Your task to perform on an android device: open app "VLC for Android" Image 0: 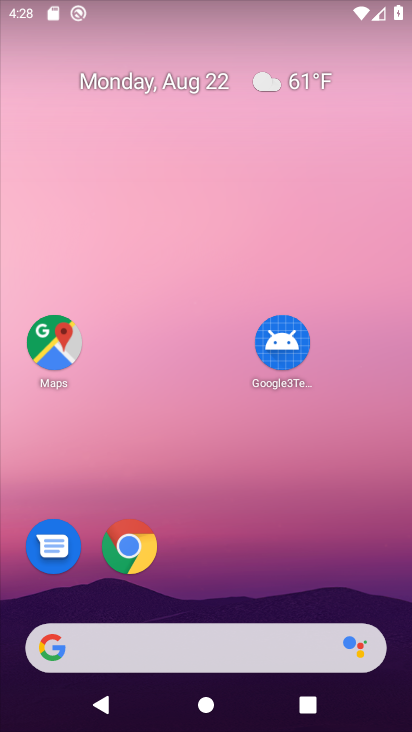
Step 0: drag from (389, 609) to (338, 189)
Your task to perform on an android device: open app "VLC for Android" Image 1: 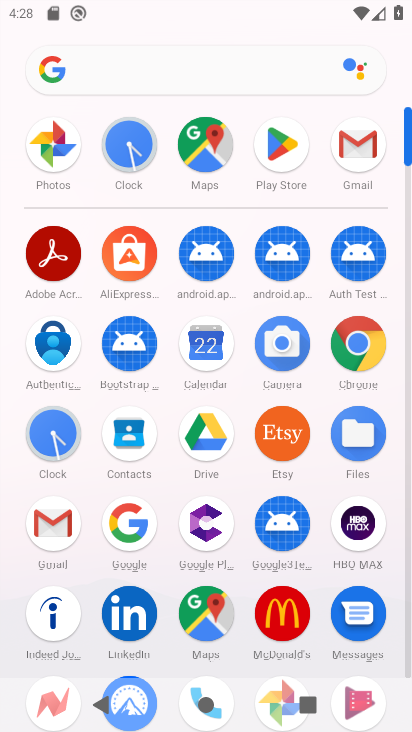
Step 1: click (409, 664)
Your task to perform on an android device: open app "VLC for Android" Image 2: 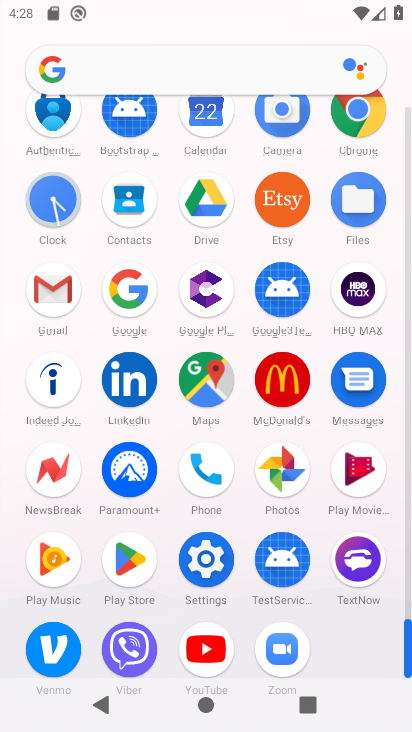
Step 2: click (134, 558)
Your task to perform on an android device: open app "VLC for Android" Image 3: 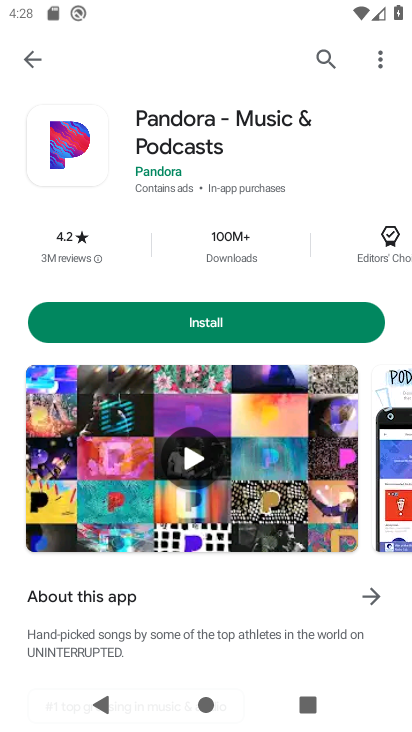
Step 3: click (322, 57)
Your task to perform on an android device: open app "VLC for Android" Image 4: 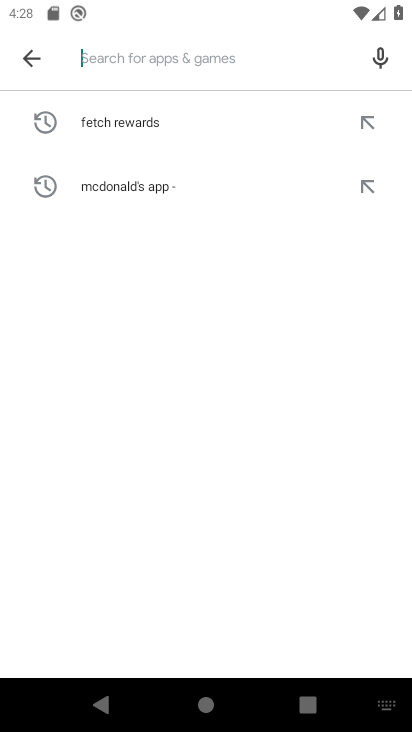
Step 4: type "VLC for Android"
Your task to perform on an android device: open app "VLC for Android" Image 5: 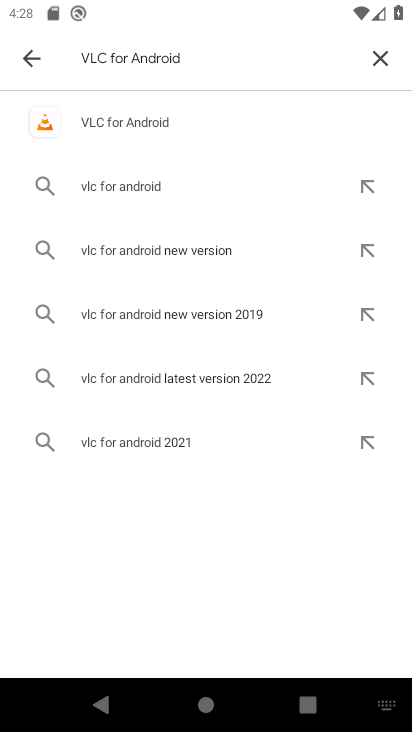
Step 5: click (125, 127)
Your task to perform on an android device: open app "VLC for Android" Image 6: 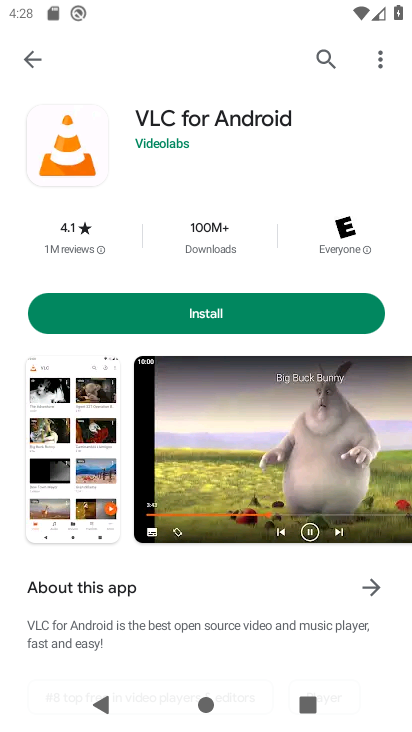
Step 6: task complete